Your task to perform on an android device: turn vacation reply on in the gmail app Image 0: 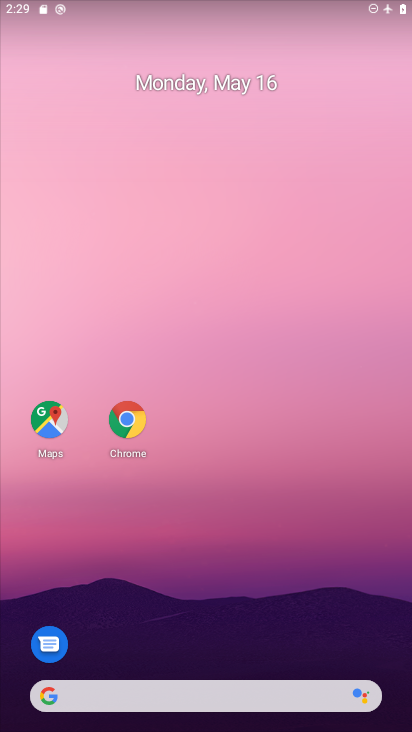
Step 0: click (239, 70)
Your task to perform on an android device: turn vacation reply on in the gmail app Image 1: 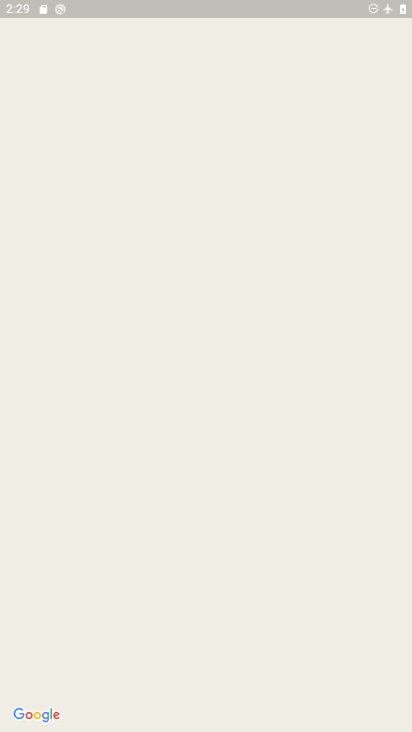
Step 1: drag from (258, 588) to (287, 253)
Your task to perform on an android device: turn vacation reply on in the gmail app Image 2: 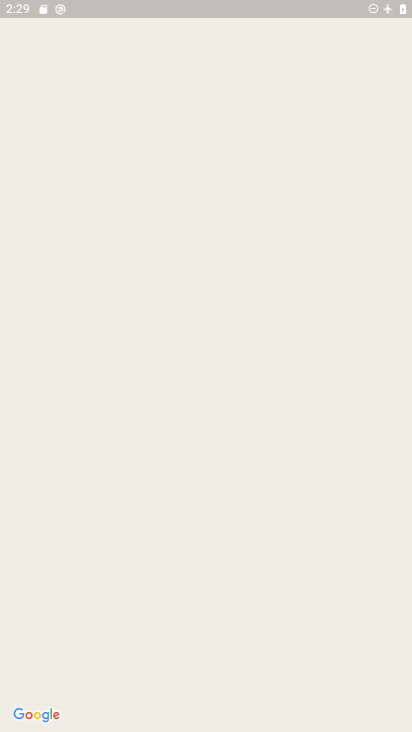
Step 2: press home button
Your task to perform on an android device: turn vacation reply on in the gmail app Image 3: 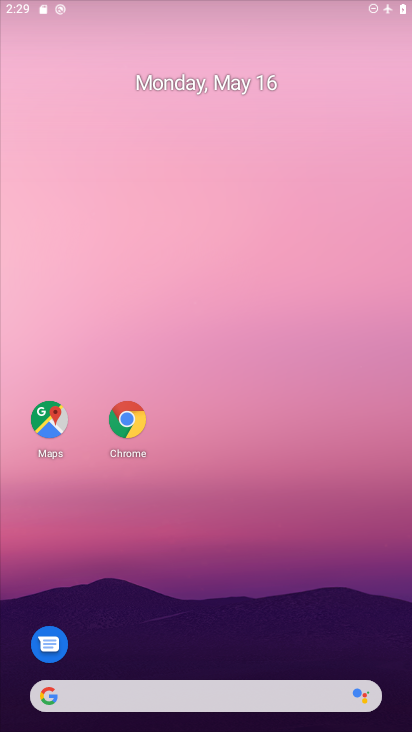
Step 3: drag from (238, 634) to (301, 178)
Your task to perform on an android device: turn vacation reply on in the gmail app Image 4: 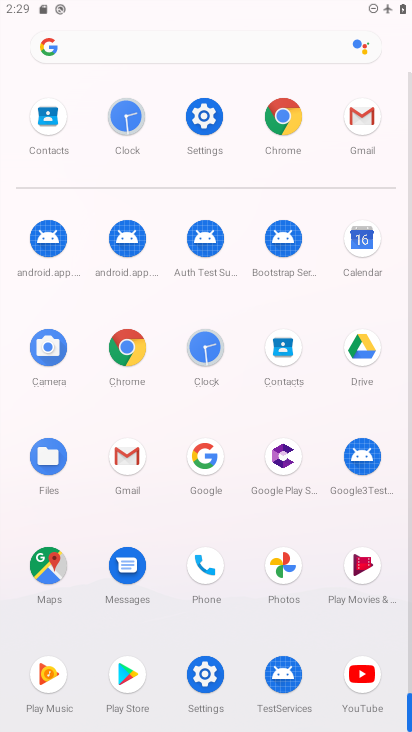
Step 4: click (214, 105)
Your task to perform on an android device: turn vacation reply on in the gmail app Image 5: 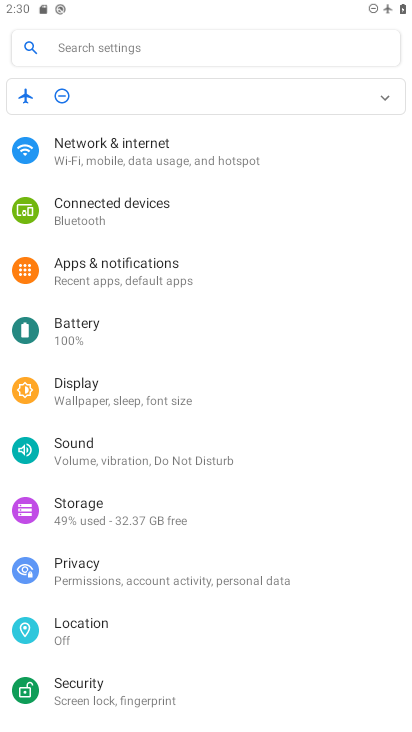
Step 5: press back button
Your task to perform on an android device: turn vacation reply on in the gmail app Image 6: 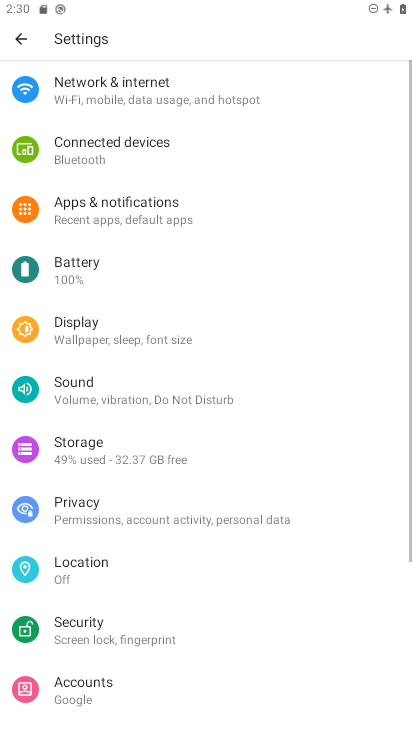
Step 6: press back button
Your task to perform on an android device: turn vacation reply on in the gmail app Image 7: 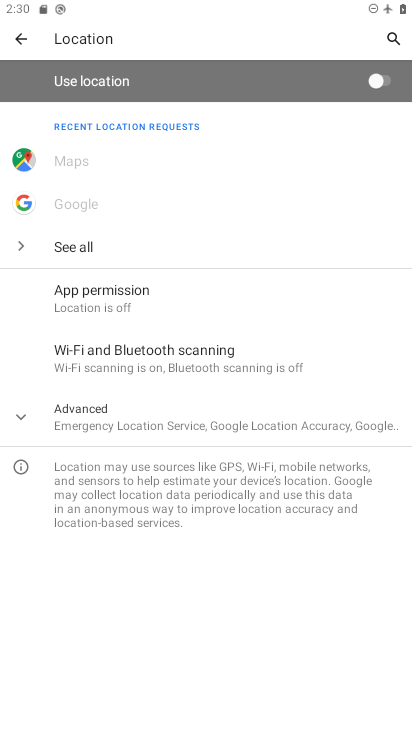
Step 7: press home button
Your task to perform on an android device: turn vacation reply on in the gmail app Image 8: 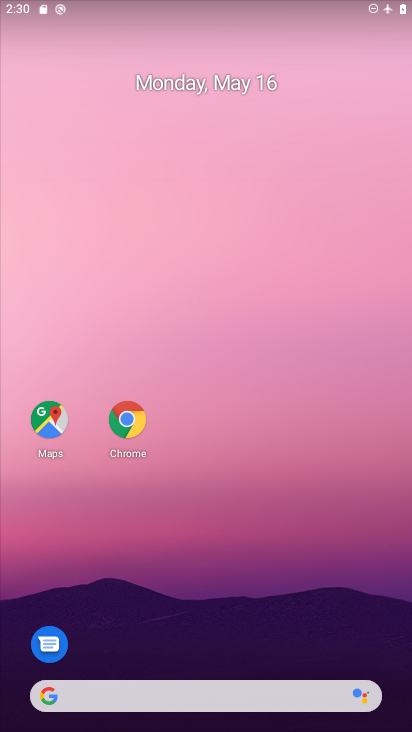
Step 8: drag from (167, 571) to (178, 12)
Your task to perform on an android device: turn vacation reply on in the gmail app Image 9: 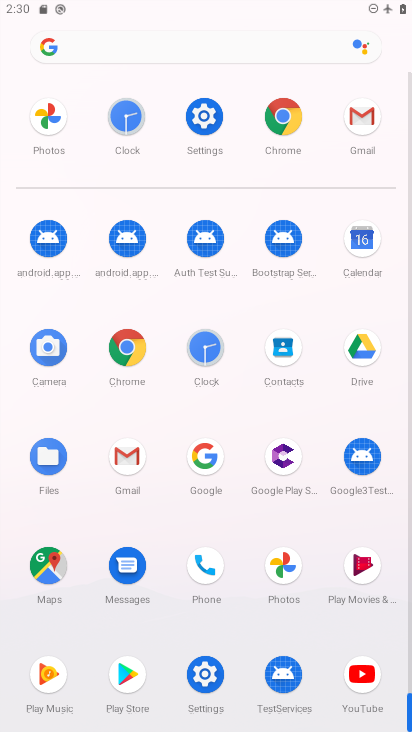
Step 9: click (139, 464)
Your task to perform on an android device: turn vacation reply on in the gmail app Image 10: 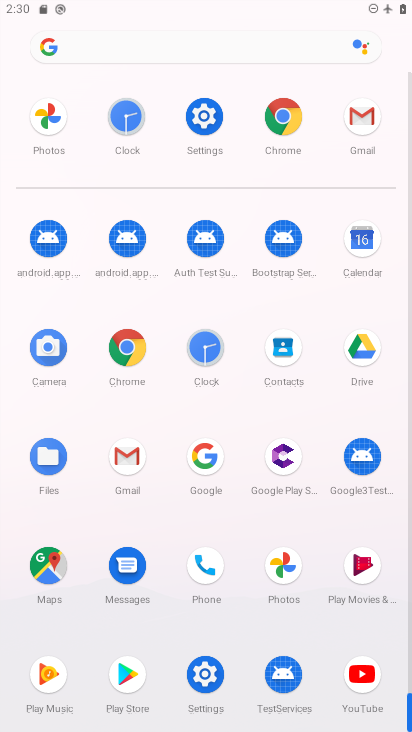
Step 10: click (139, 464)
Your task to perform on an android device: turn vacation reply on in the gmail app Image 11: 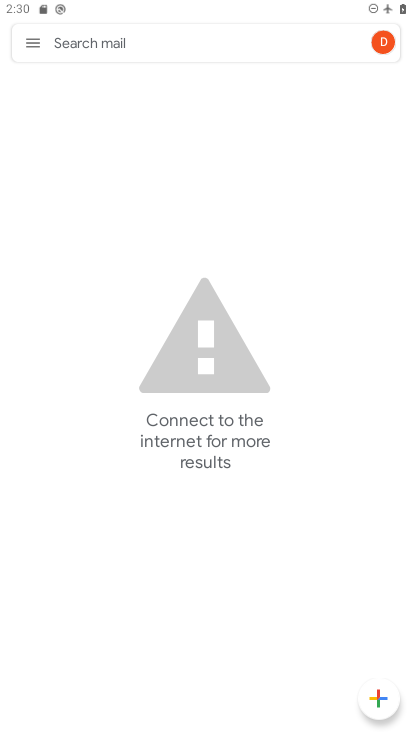
Step 11: click (31, 45)
Your task to perform on an android device: turn vacation reply on in the gmail app Image 12: 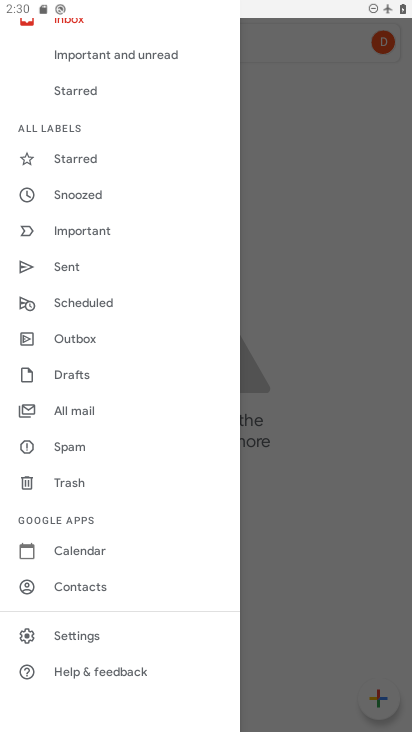
Step 12: click (106, 632)
Your task to perform on an android device: turn vacation reply on in the gmail app Image 13: 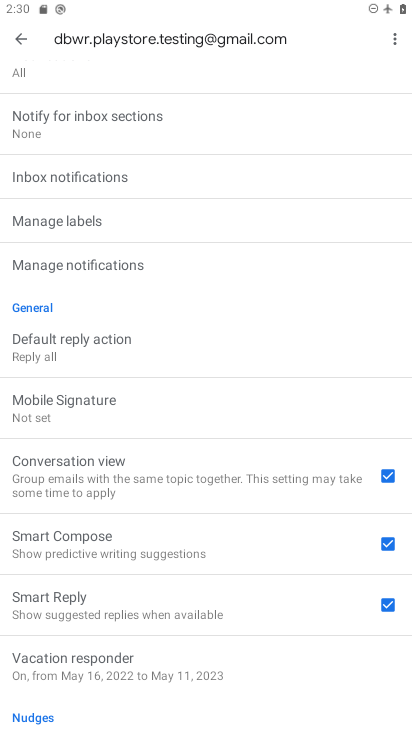
Step 13: drag from (213, 602) to (216, 325)
Your task to perform on an android device: turn vacation reply on in the gmail app Image 14: 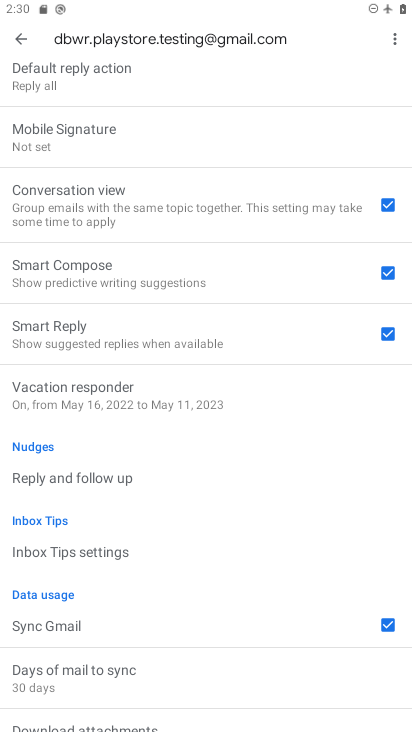
Step 14: click (129, 407)
Your task to perform on an android device: turn vacation reply on in the gmail app Image 15: 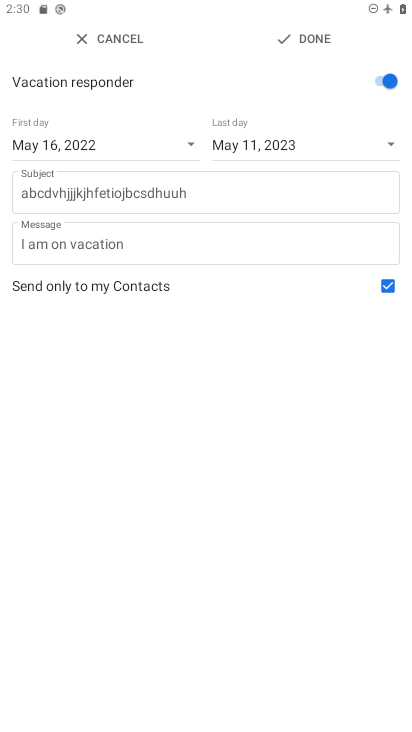
Step 15: click (304, 37)
Your task to perform on an android device: turn vacation reply on in the gmail app Image 16: 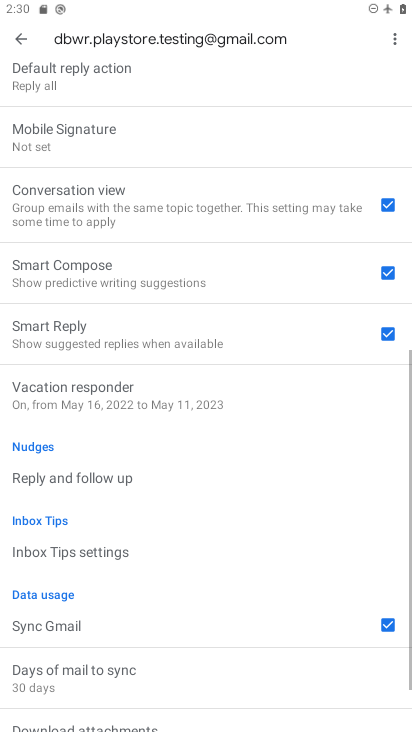
Step 16: task complete